Your task to perform on an android device: clear all cookies in the chrome app Image 0: 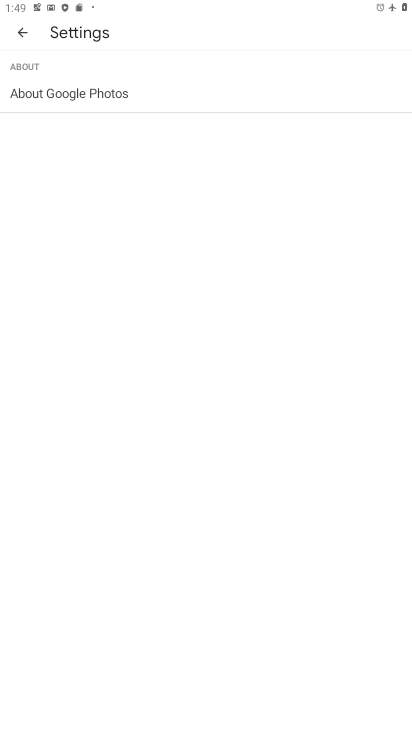
Step 0: press home button
Your task to perform on an android device: clear all cookies in the chrome app Image 1: 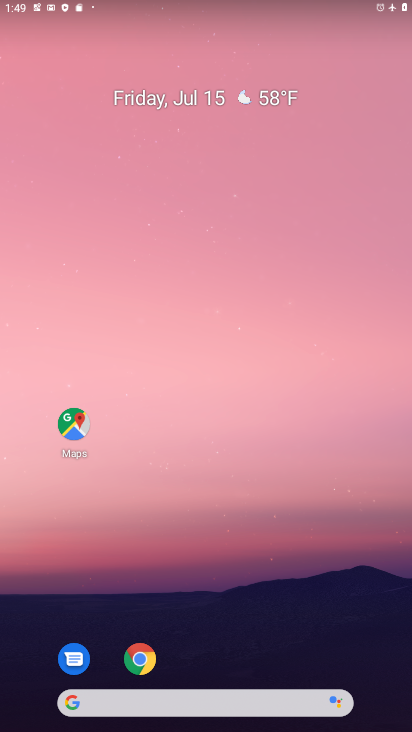
Step 1: click (145, 668)
Your task to perform on an android device: clear all cookies in the chrome app Image 2: 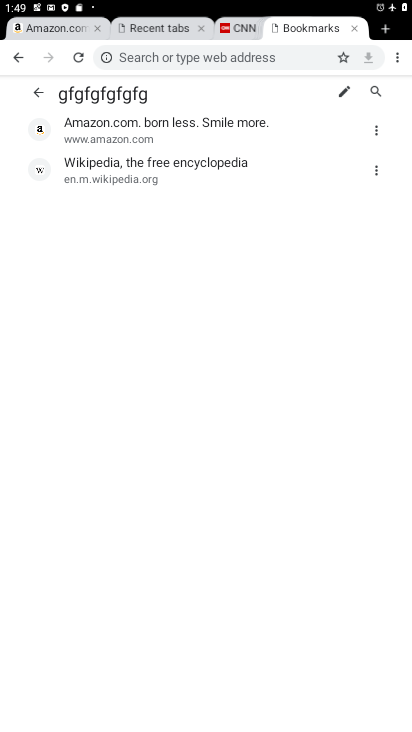
Step 2: click (404, 71)
Your task to perform on an android device: clear all cookies in the chrome app Image 3: 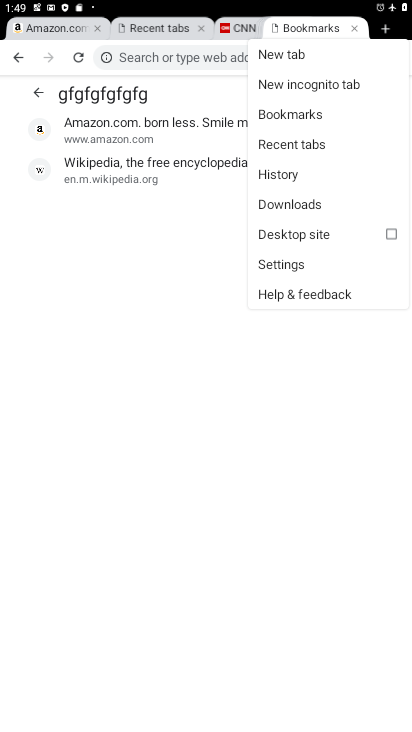
Step 3: click (278, 175)
Your task to perform on an android device: clear all cookies in the chrome app Image 4: 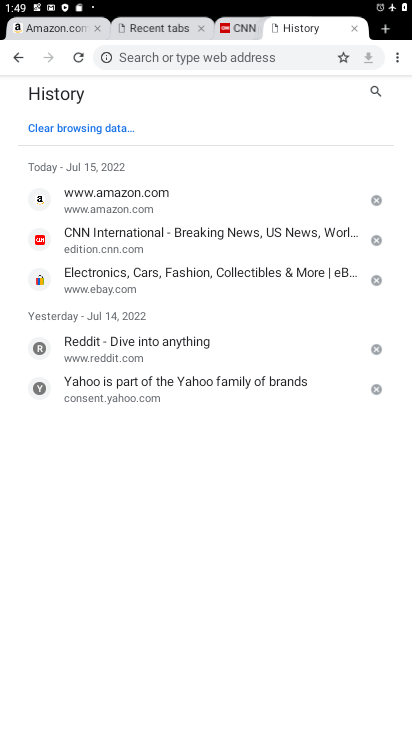
Step 4: click (110, 126)
Your task to perform on an android device: clear all cookies in the chrome app Image 5: 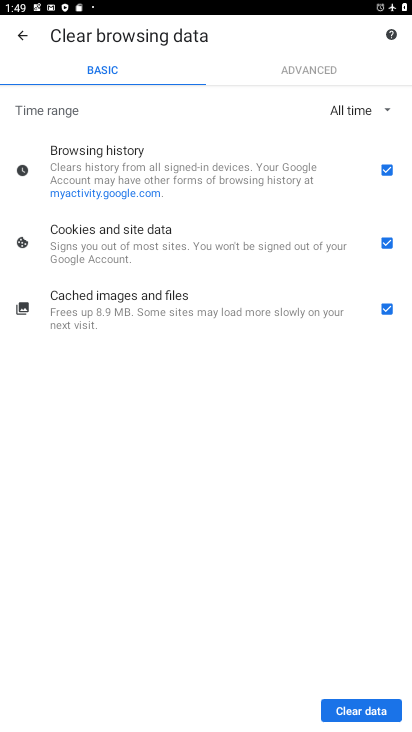
Step 5: click (382, 309)
Your task to perform on an android device: clear all cookies in the chrome app Image 6: 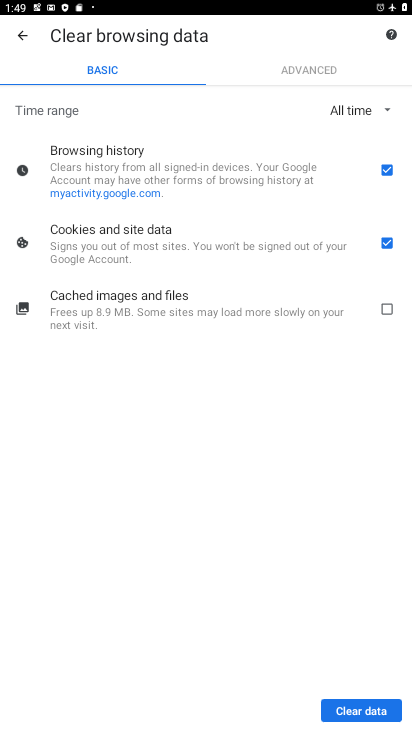
Step 6: click (387, 166)
Your task to perform on an android device: clear all cookies in the chrome app Image 7: 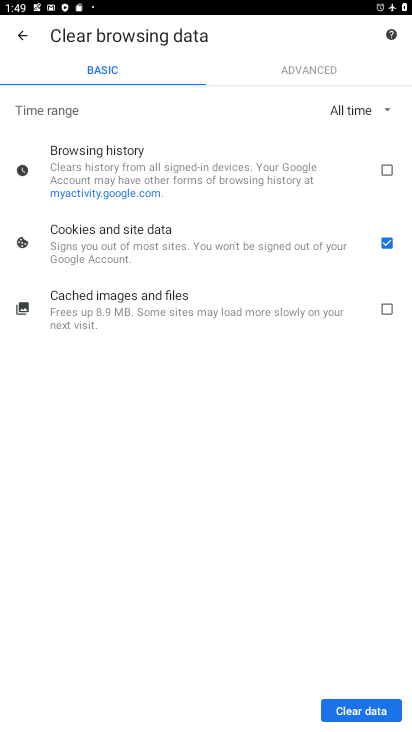
Step 7: click (370, 710)
Your task to perform on an android device: clear all cookies in the chrome app Image 8: 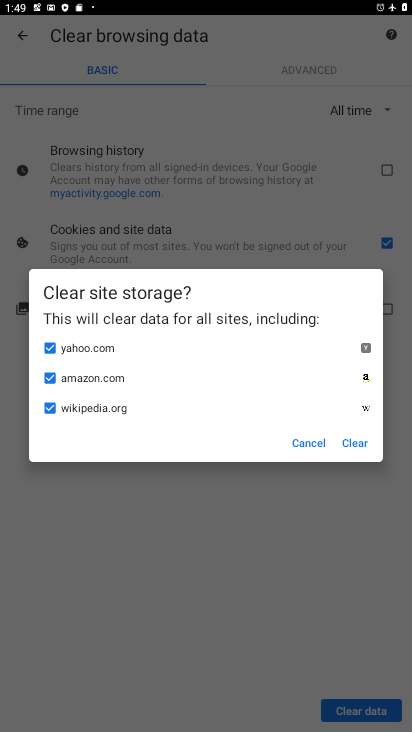
Step 8: click (358, 438)
Your task to perform on an android device: clear all cookies in the chrome app Image 9: 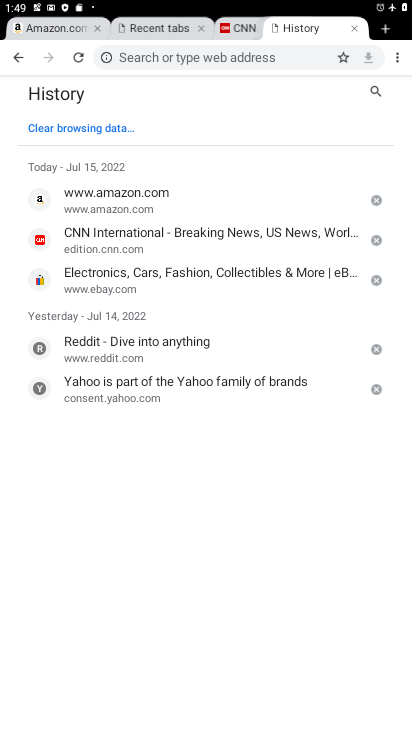
Step 9: task complete